Your task to perform on an android device: open sync settings in chrome Image 0: 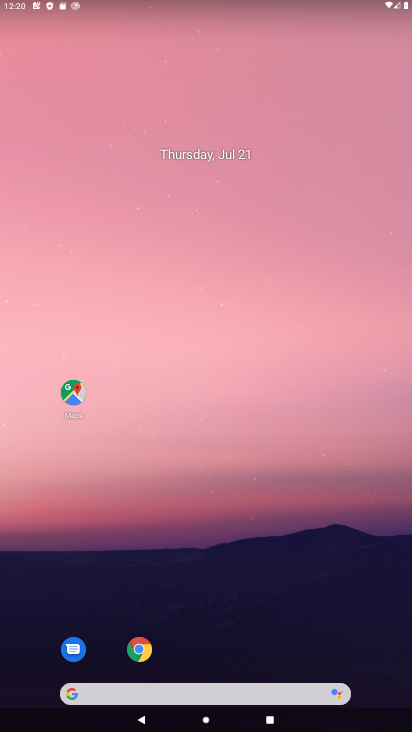
Step 0: click (140, 647)
Your task to perform on an android device: open sync settings in chrome Image 1: 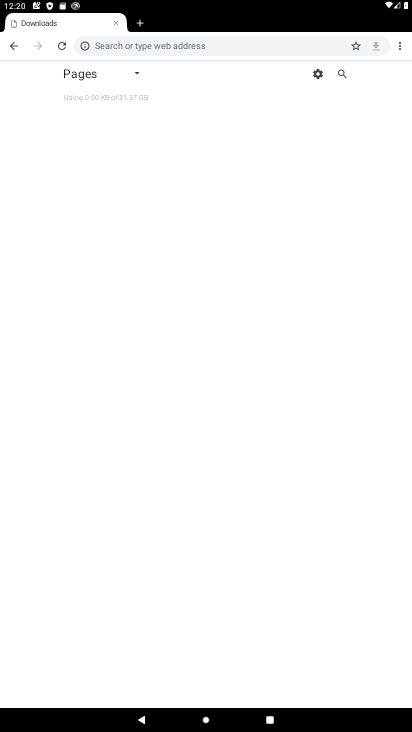
Step 1: click (399, 48)
Your task to perform on an android device: open sync settings in chrome Image 2: 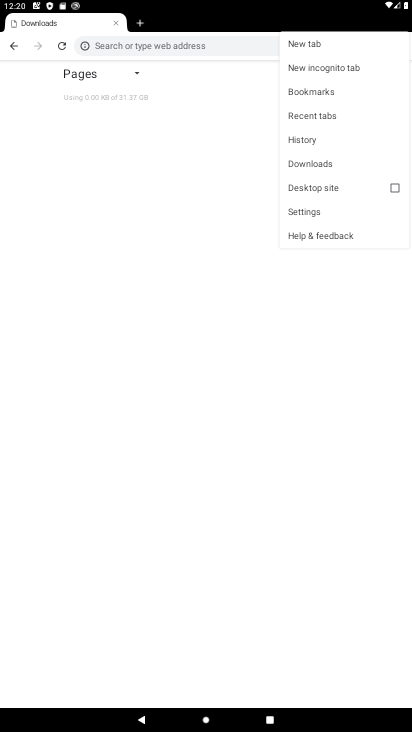
Step 2: click (307, 208)
Your task to perform on an android device: open sync settings in chrome Image 3: 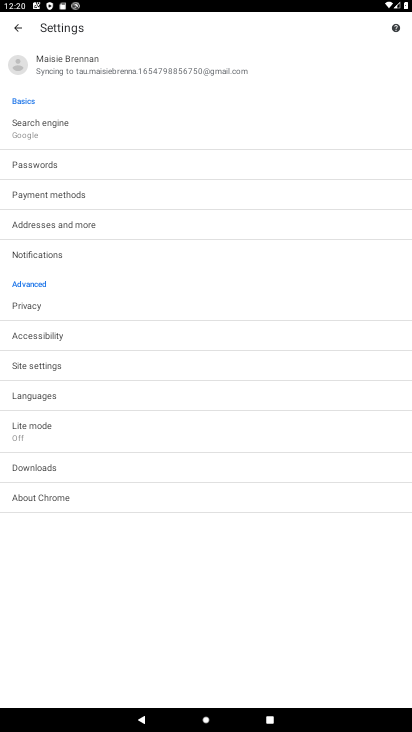
Step 3: click (79, 66)
Your task to perform on an android device: open sync settings in chrome Image 4: 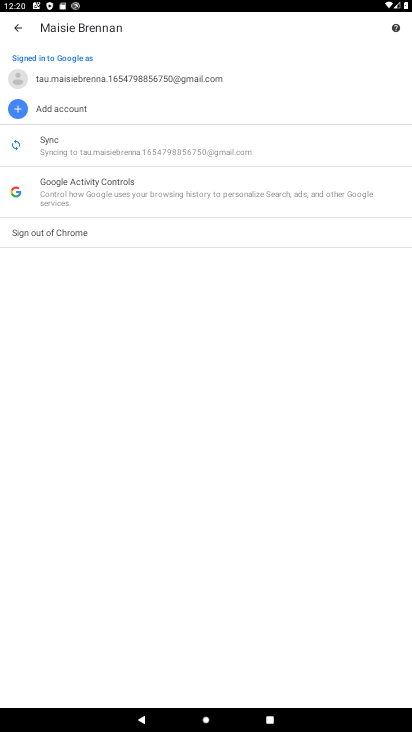
Step 4: click (56, 139)
Your task to perform on an android device: open sync settings in chrome Image 5: 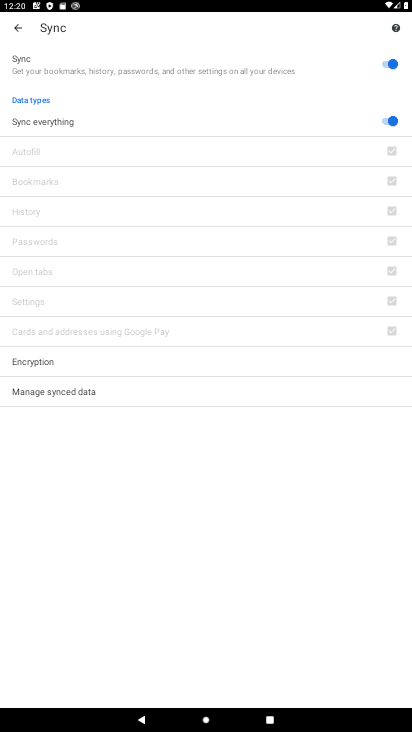
Step 5: task complete